Your task to perform on an android device: open app "The Home Depot" (install if not already installed) and enter user name: "taproot@icloud.com" and password: "executions" Image 0: 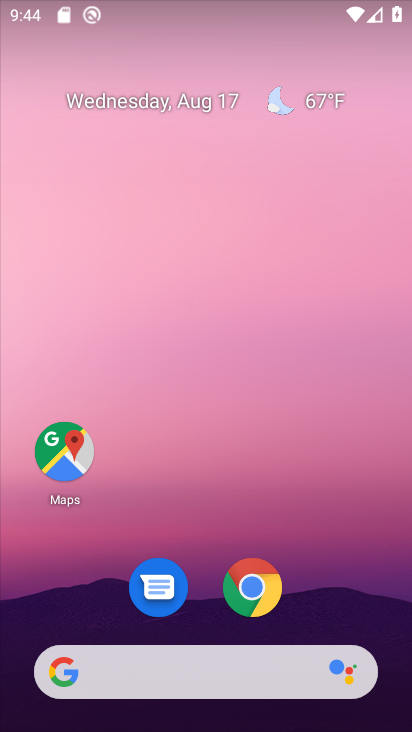
Step 0: drag from (180, 548) to (261, 8)
Your task to perform on an android device: open app "The Home Depot" (install if not already installed) and enter user name: "taproot@icloud.com" and password: "executions" Image 1: 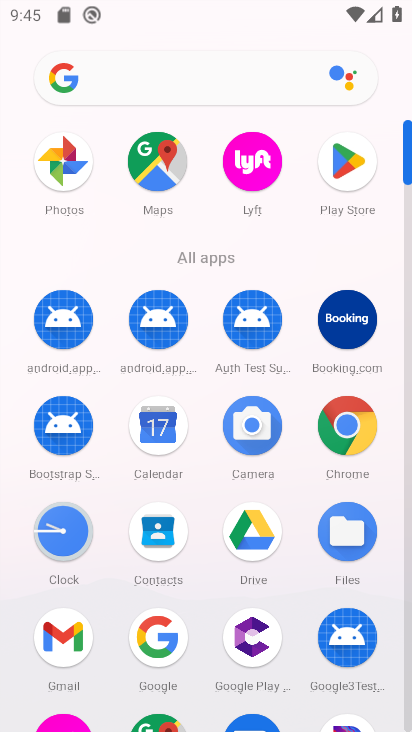
Step 1: click (348, 158)
Your task to perform on an android device: open app "The Home Depot" (install if not already installed) and enter user name: "taproot@icloud.com" and password: "executions" Image 2: 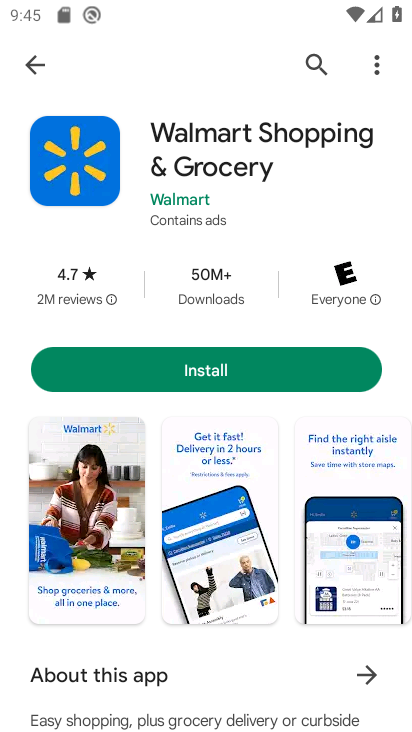
Step 2: click (39, 68)
Your task to perform on an android device: open app "The Home Depot" (install if not already installed) and enter user name: "taproot@icloud.com" and password: "executions" Image 3: 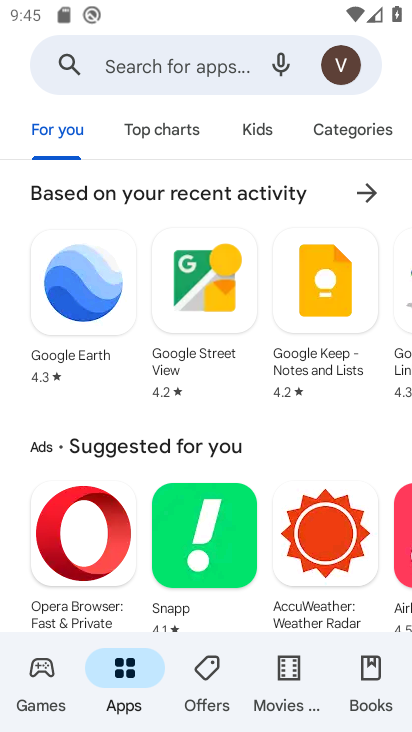
Step 3: click (82, 71)
Your task to perform on an android device: open app "The Home Depot" (install if not already installed) and enter user name: "taproot@icloud.com" and password: "executions" Image 4: 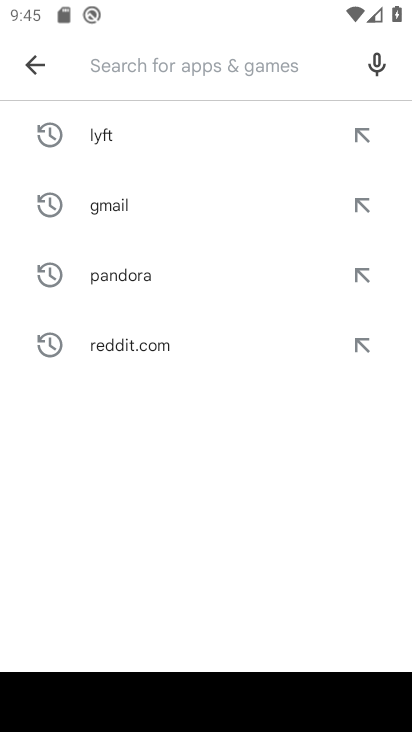
Step 4: type "The Home Depot"
Your task to perform on an android device: open app "The Home Depot" (install if not already installed) and enter user name: "taproot@icloud.com" and password: "executions" Image 5: 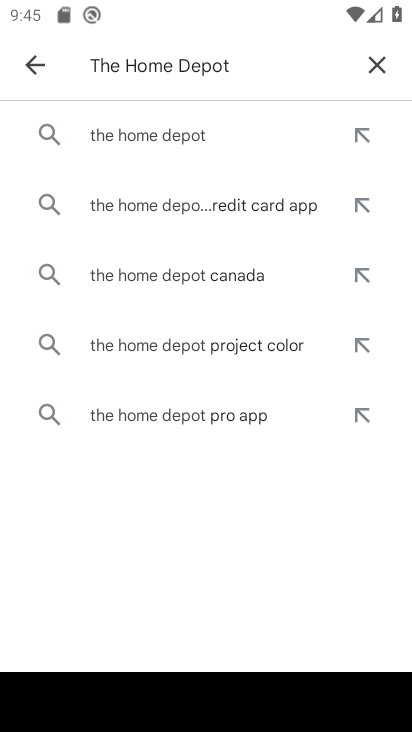
Step 5: click (183, 137)
Your task to perform on an android device: open app "The Home Depot" (install if not already installed) and enter user name: "taproot@icloud.com" and password: "executions" Image 6: 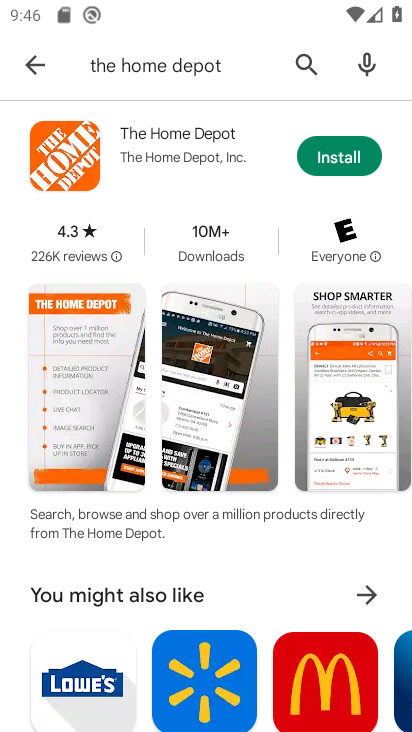
Step 6: click (329, 151)
Your task to perform on an android device: open app "The Home Depot" (install if not already installed) and enter user name: "taproot@icloud.com" and password: "executions" Image 7: 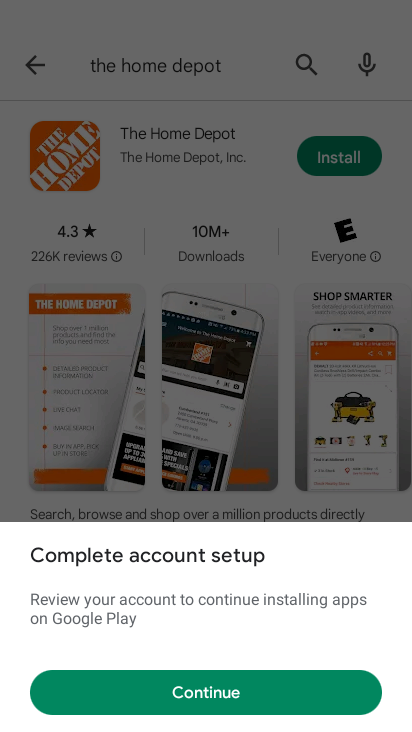
Step 7: click (206, 683)
Your task to perform on an android device: open app "The Home Depot" (install if not already installed) and enter user name: "taproot@icloud.com" and password: "executions" Image 8: 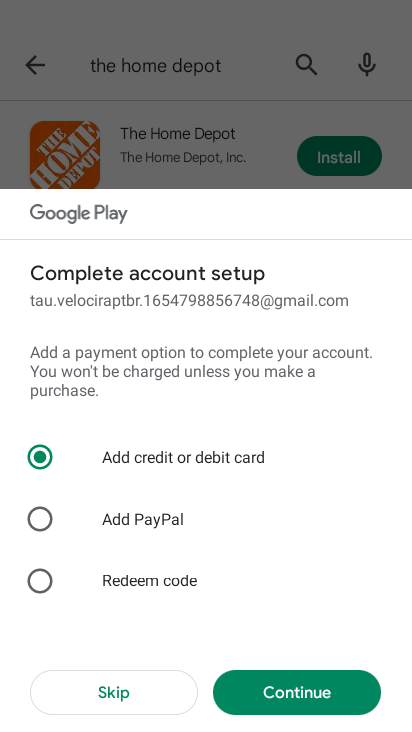
Step 8: click (94, 697)
Your task to perform on an android device: open app "The Home Depot" (install if not already installed) and enter user name: "taproot@icloud.com" and password: "executions" Image 9: 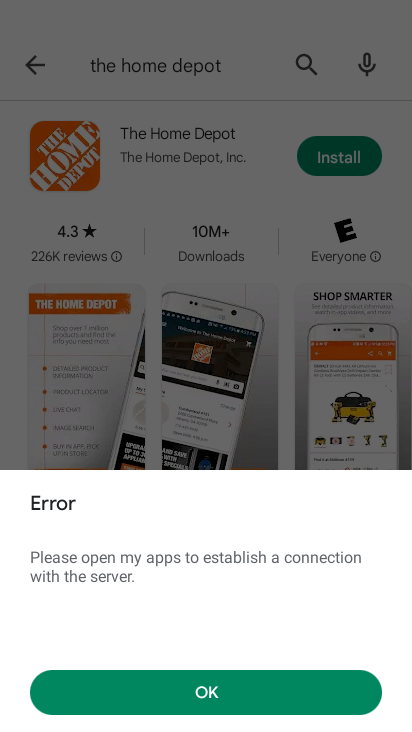
Step 9: task complete